Your task to perform on an android device: Open Reddit.com Image 0: 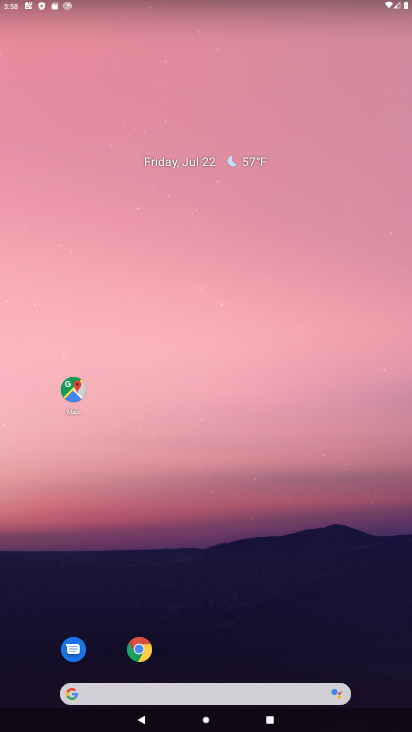
Step 0: click (86, 694)
Your task to perform on an android device: Open Reddit.com Image 1: 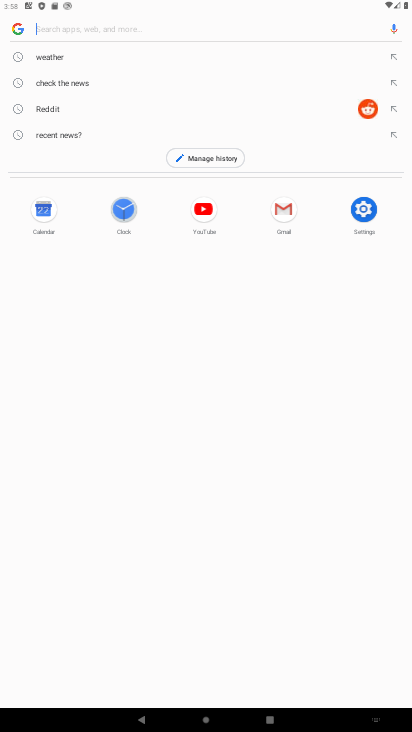
Step 1: type " Reddit.com"
Your task to perform on an android device: Open Reddit.com Image 2: 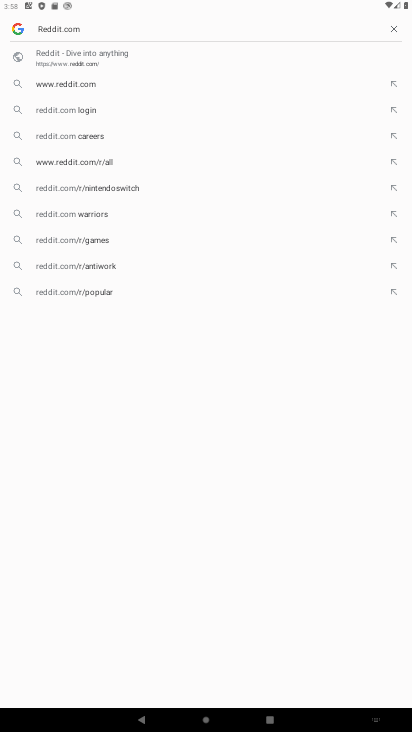
Step 2: type ""
Your task to perform on an android device: Open Reddit.com Image 3: 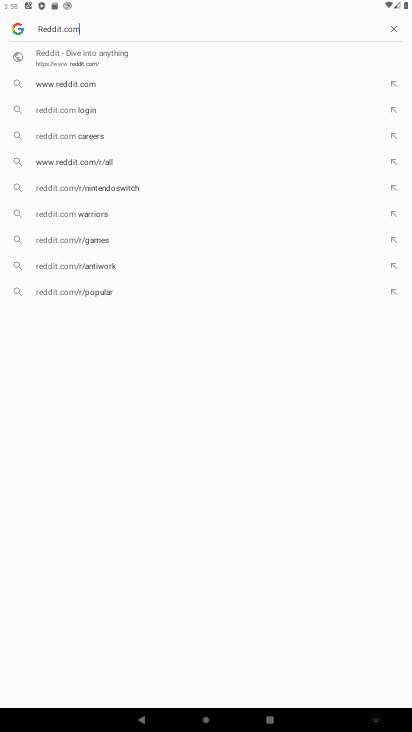
Step 3: type ""
Your task to perform on an android device: Open Reddit.com Image 4: 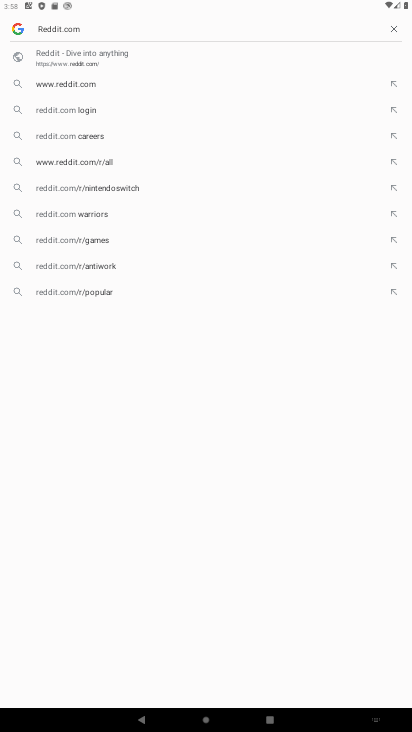
Step 4: type ""
Your task to perform on an android device: Open Reddit.com Image 5: 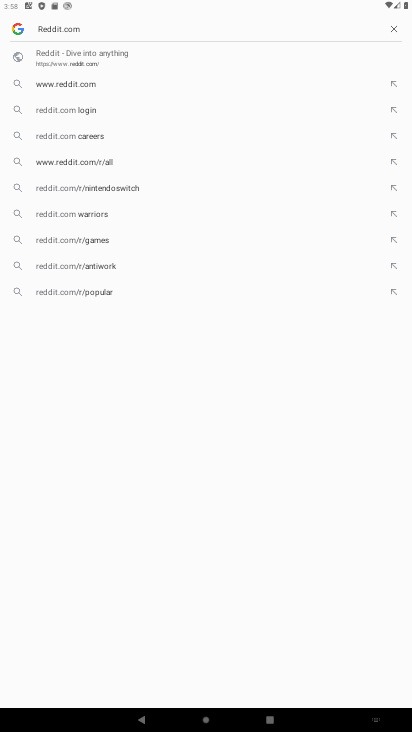
Step 5: click (64, 59)
Your task to perform on an android device: Open Reddit.com Image 6: 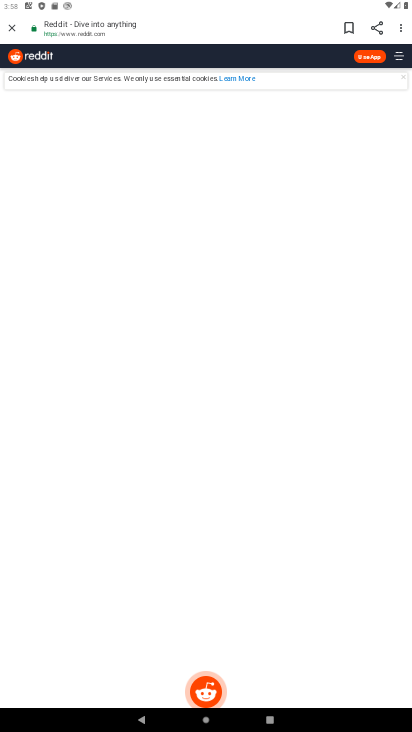
Step 6: task complete